Your task to perform on an android device: turn on sleep mode Image 0: 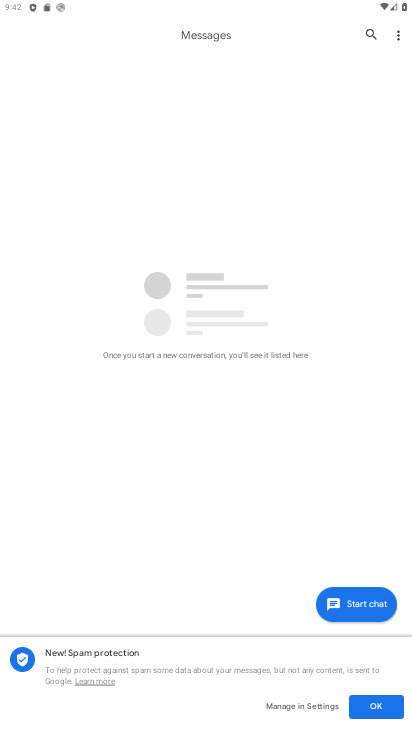
Step 0: press home button
Your task to perform on an android device: turn on sleep mode Image 1: 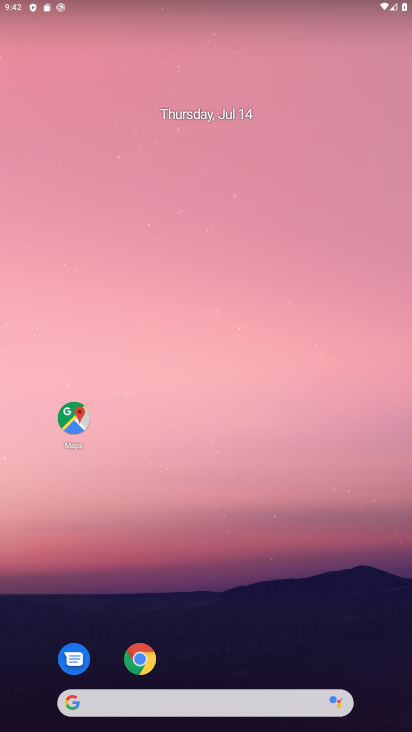
Step 1: drag from (269, 676) to (368, 125)
Your task to perform on an android device: turn on sleep mode Image 2: 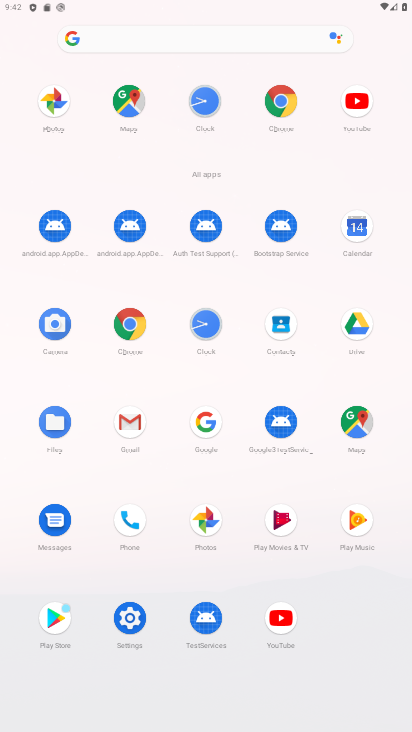
Step 2: click (138, 619)
Your task to perform on an android device: turn on sleep mode Image 3: 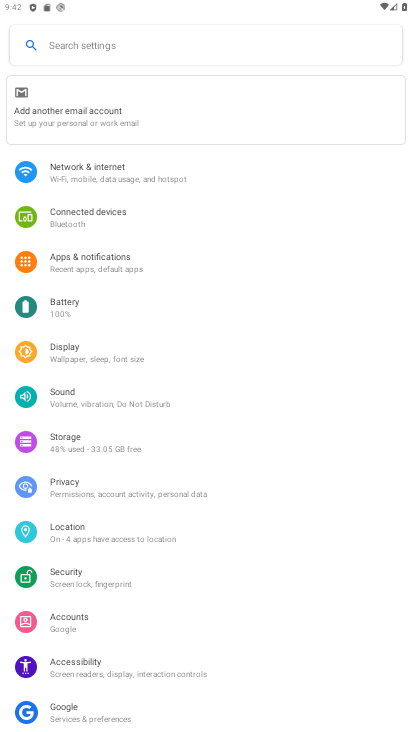
Step 3: click (100, 362)
Your task to perform on an android device: turn on sleep mode Image 4: 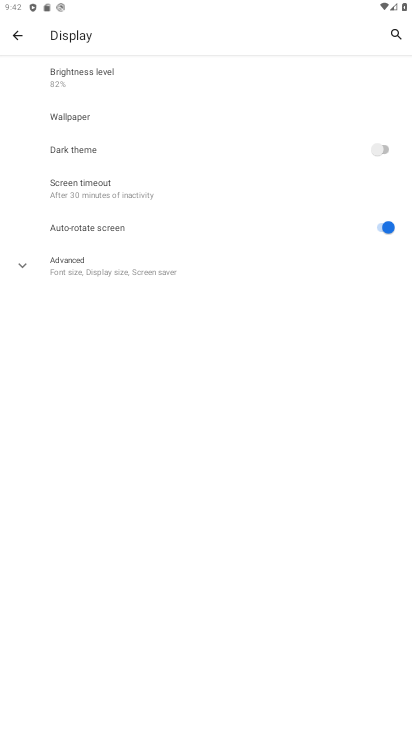
Step 4: click (101, 265)
Your task to perform on an android device: turn on sleep mode Image 5: 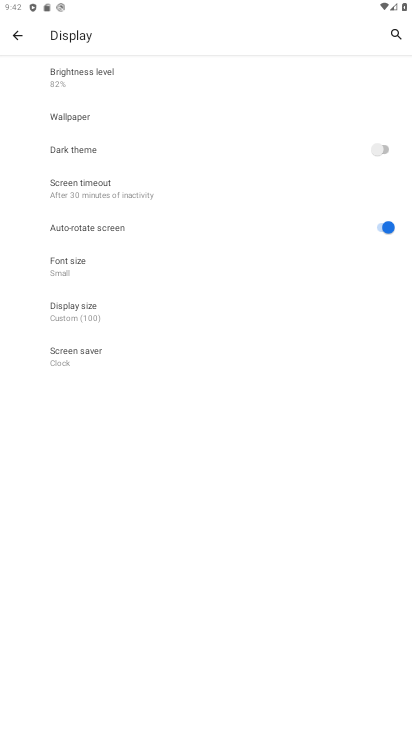
Step 5: task complete